Your task to perform on an android device: search for starred emails in the gmail app Image 0: 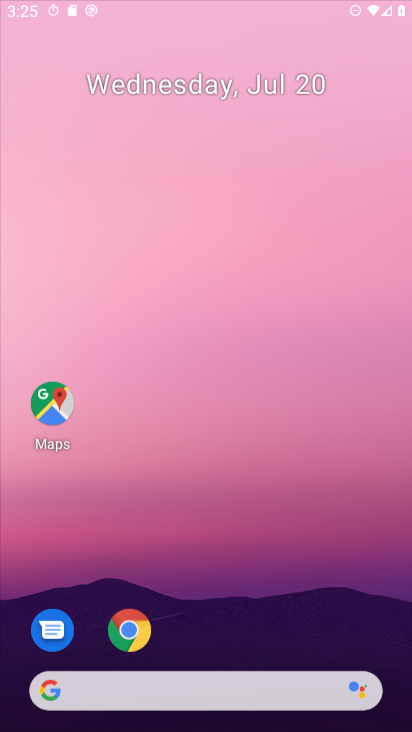
Step 0: drag from (268, 634) to (150, 38)
Your task to perform on an android device: search for starred emails in the gmail app Image 1: 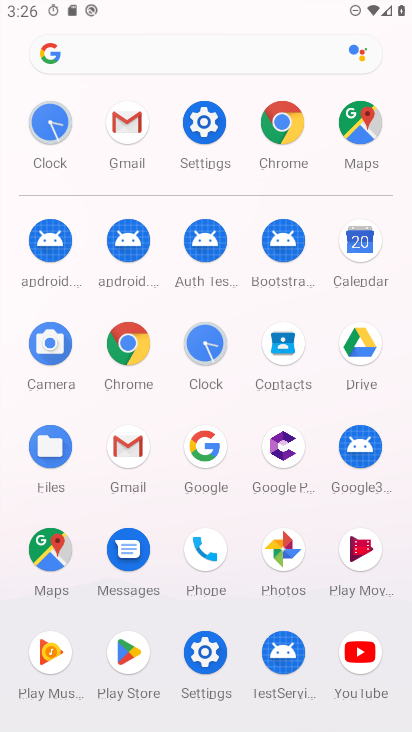
Step 1: click (127, 118)
Your task to perform on an android device: search for starred emails in the gmail app Image 2: 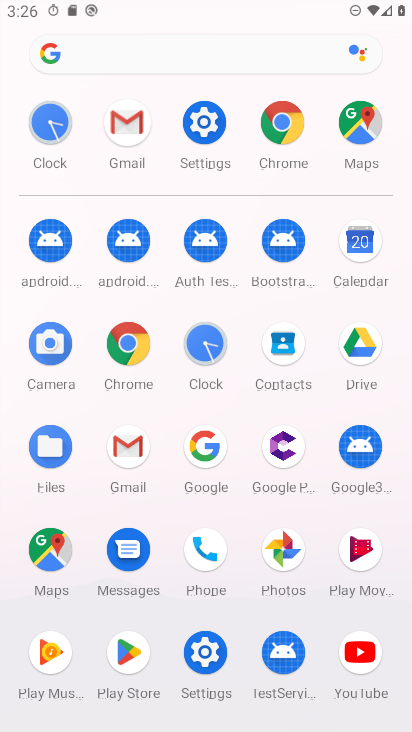
Step 2: click (127, 118)
Your task to perform on an android device: search for starred emails in the gmail app Image 3: 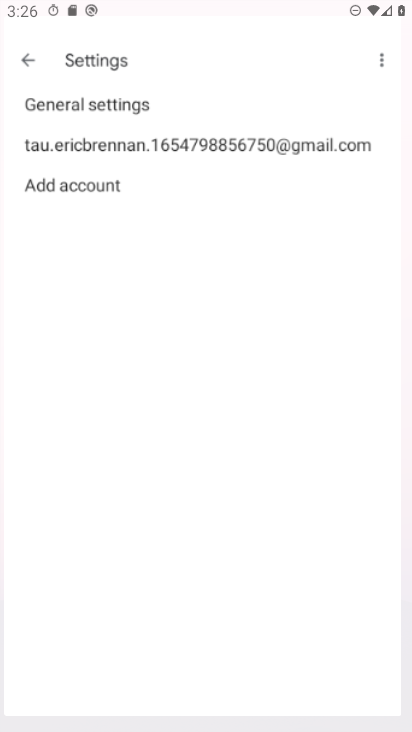
Step 3: click (127, 118)
Your task to perform on an android device: search for starred emails in the gmail app Image 4: 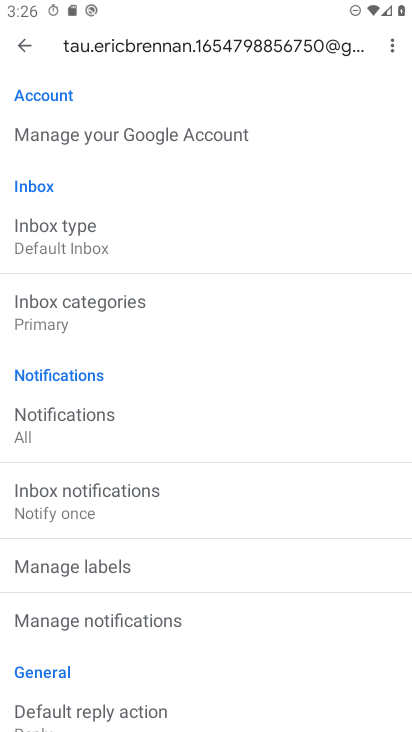
Step 4: click (25, 40)
Your task to perform on an android device: search for starred emails in the gmail app Image 5: 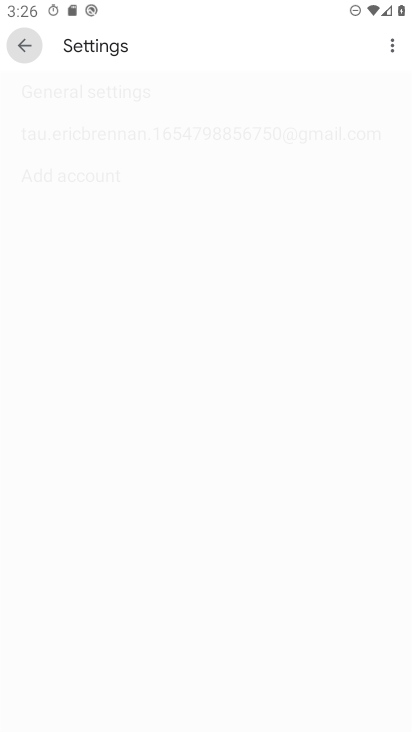
Step 5: click (26, 39)
Your task to perform on an android device: search for starred emails in the gmail app Image 6: 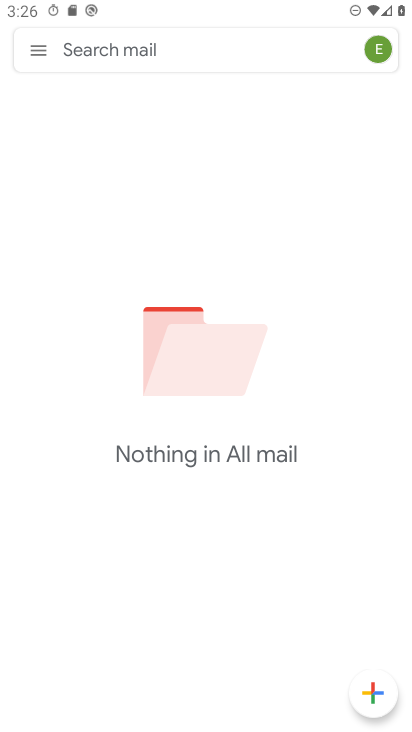
Step 6: click (22, 49)
Your task to perform on an android device: search for starred emails in the gmail app Image 7: 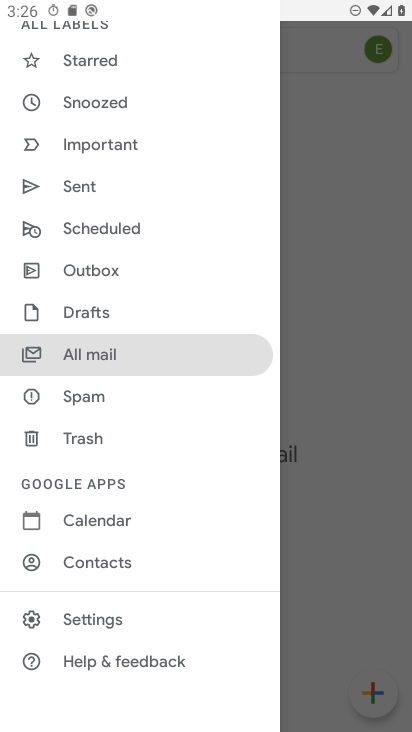
Step 7: click (87, 65)
Your task to perform on an android device: search for starred emails in the gmail app Image 8: 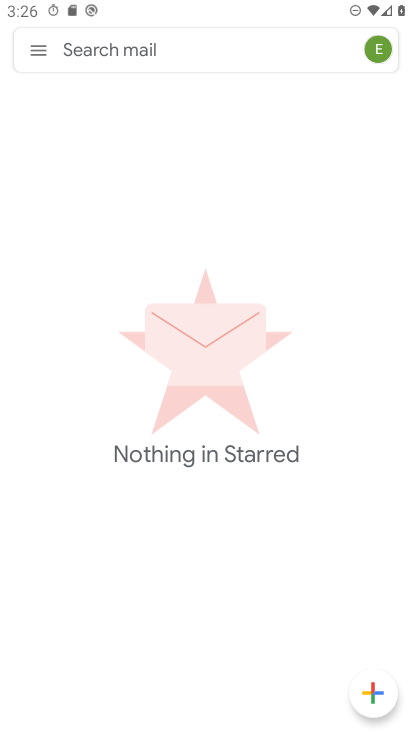
Step 8: task complete